Your task to perform on an android device: What's the weather going to be this weekend? Image 0: 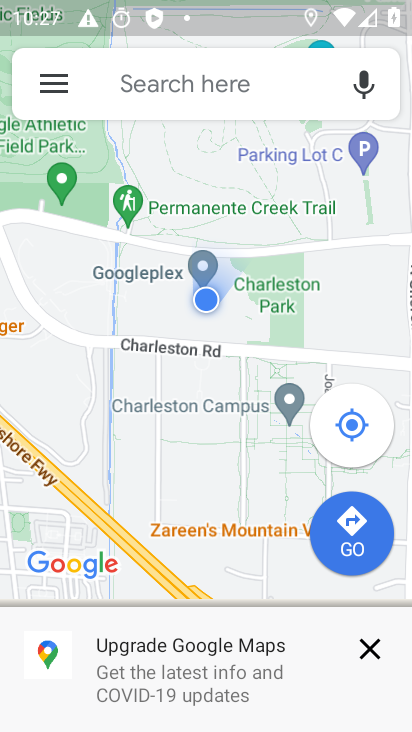
Step 0: press home button
Your task to perform on an android device: What's the weather going to be this weekend? Image 1: 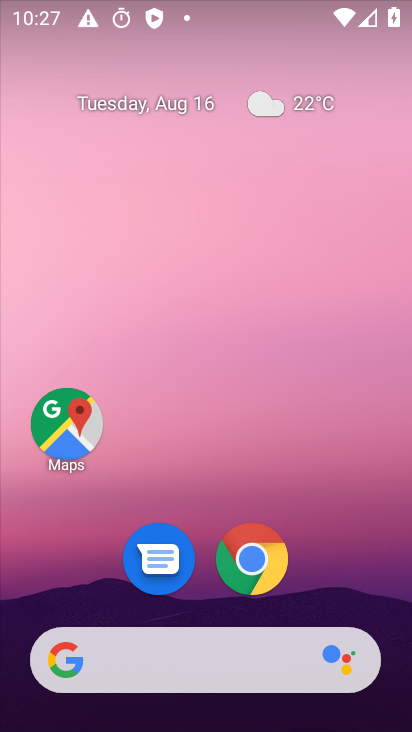
Step 1: click (138, 648)
Your task to perform on an android device: What's the weather going to be this weekend? Image 2: 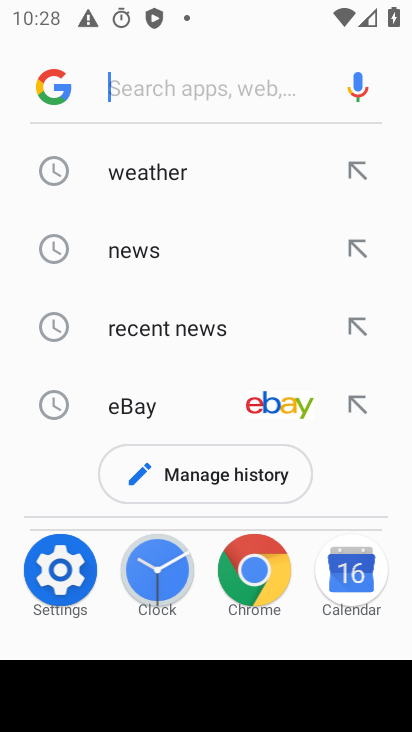
Step 2: click (166, 179)
Your task to perform on an android device: What's the weather going to be this weekend? Image 3: 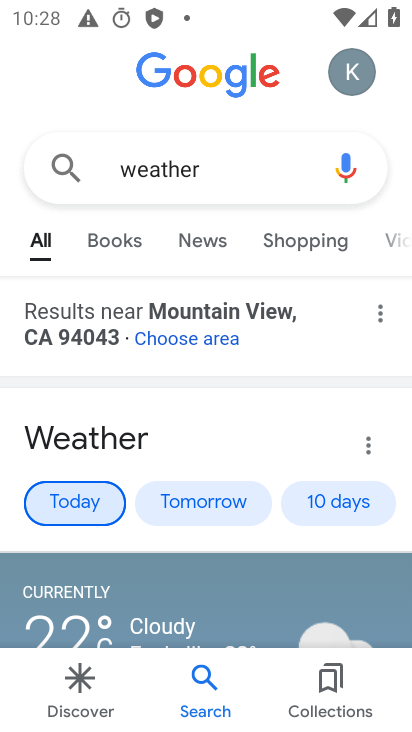
Step 3: click (316, 500)
Your task to perform on an android device: What's the weather going to be this weekend? Image 4: 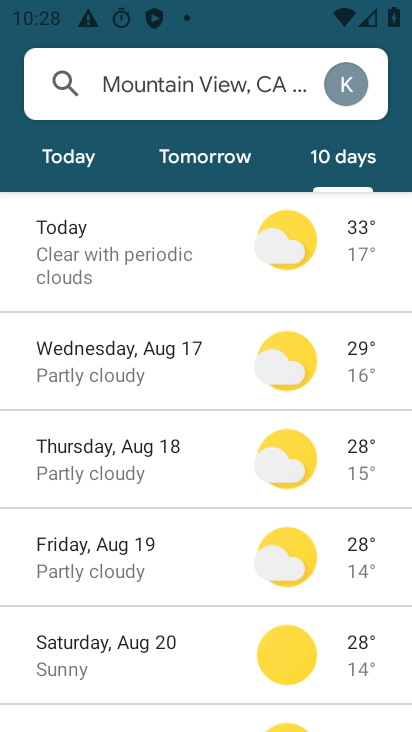
Step 4: task complete